Your task to perform on an android device: open chrome privacy settings Image 0: 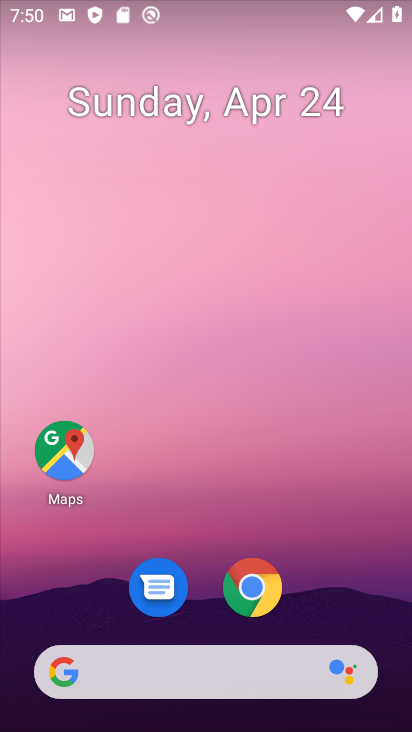
Step 0: drag from (375, 598) to (365, 267)
Your task to perform on an android device: open chrome privacy settings Image 1: 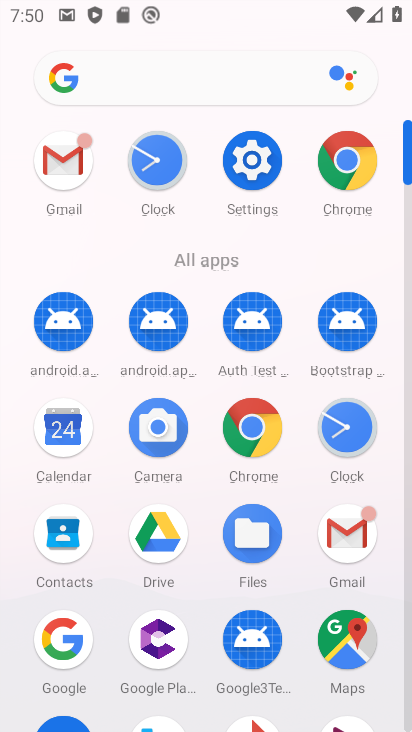
Step 1: click (362, 189)
Your task to perform on an android device: open chrome privacy settings Image 2: 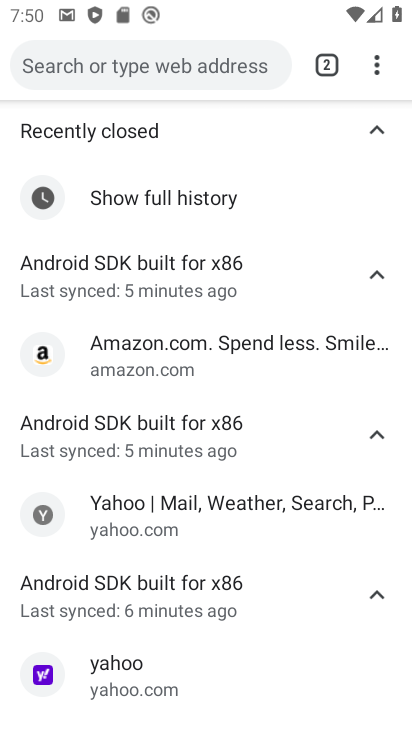
Step 2: drag from (379, 77) to (215, 535)
Your task to perform on an android device: open chrome privacy settings Image 3: 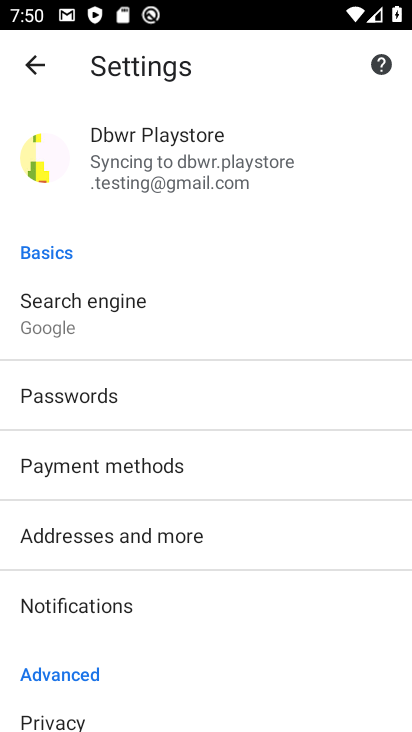
Step 3: drag from (258, 570) to (289, 291)
Your task to perform on an android device: open chrome privacy settings Image 4: 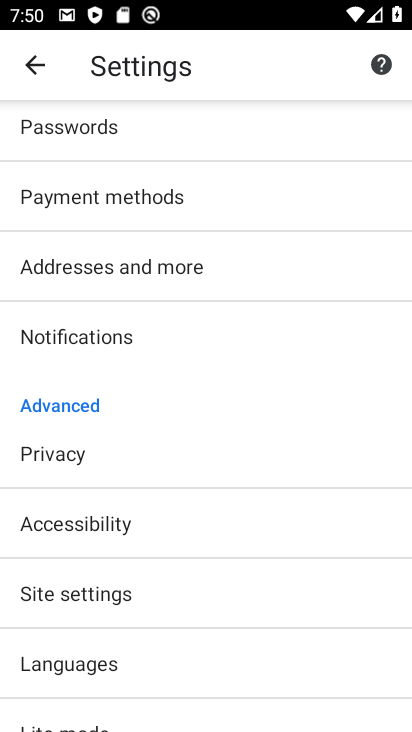
Step 4: click (90, 467)
Your task to perform on an android device: open chrome privacy settings Image 5: 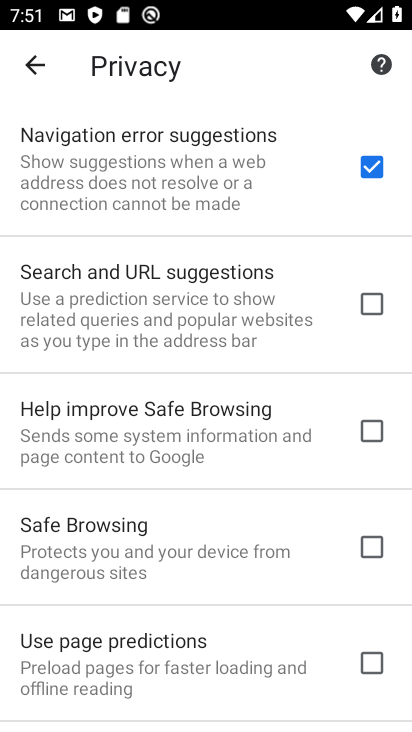
Step 5: task complete